Your task to perform on an android device: change the clock display to digital Image 0: 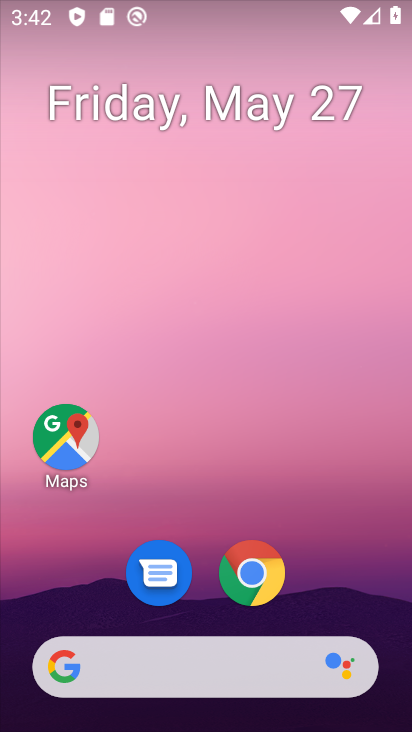
Step 0: drag from (357, 609) to (347, 272)
Your task to perform on an android device: change the clock display to digital Image 1: 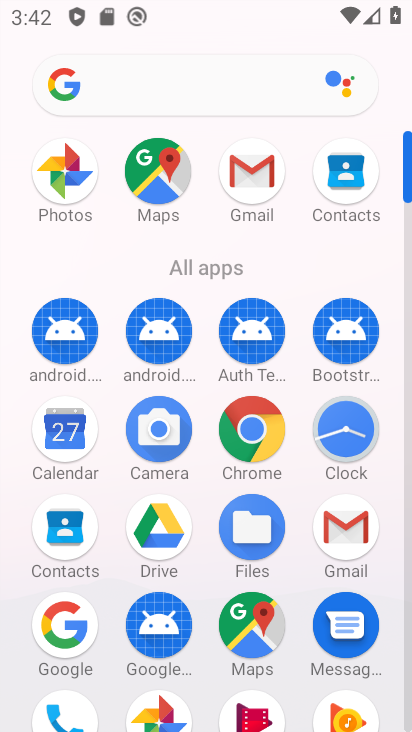
Step 1: click (371, 438)
Your task to perform on an android device: change the clock display to digital Image 2: 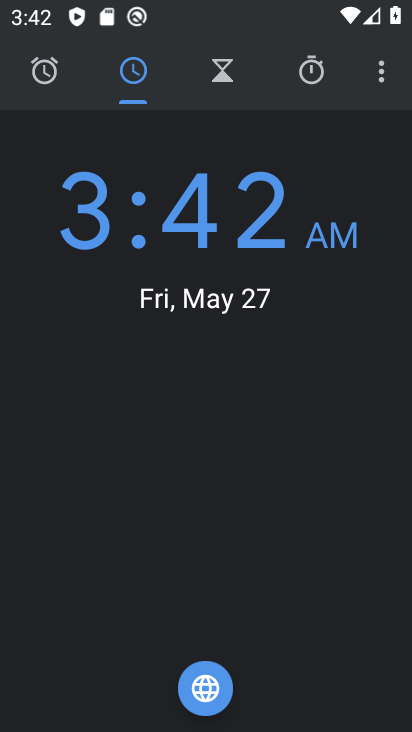
Step 2: click (382, 81)
Your task to perform on an android device: change the clock display to digital Image 3: 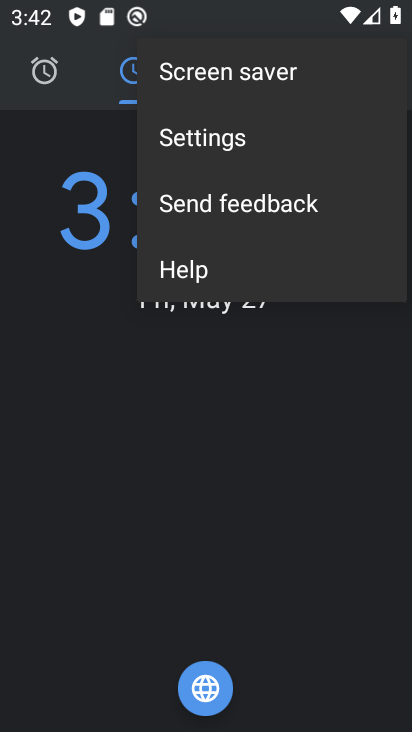
Step 3: click (253, 139)
Your task to perform on an android device: change the clock display to digital Image 4: 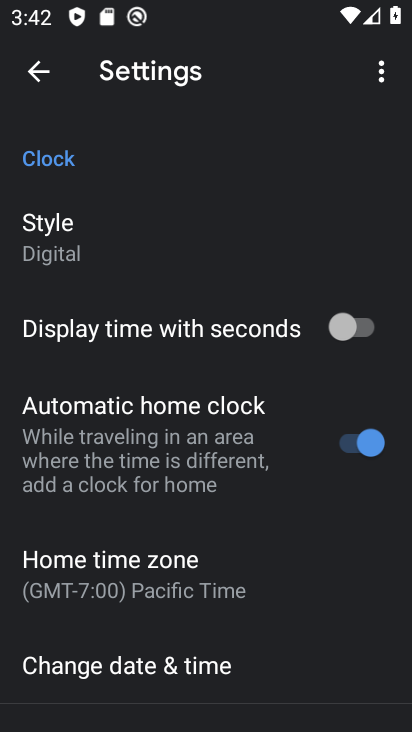
Step 4: task complete